Your task to perform on an android device: Open location settings Image 0: 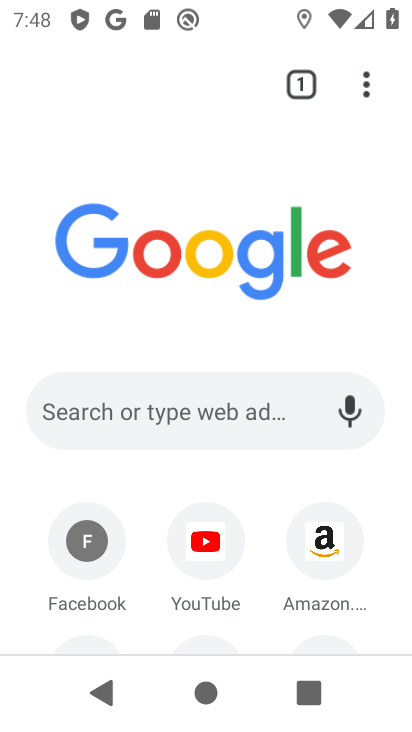
Step 0: press home button
Your task to perform on an android device: Open location settings Image 1: 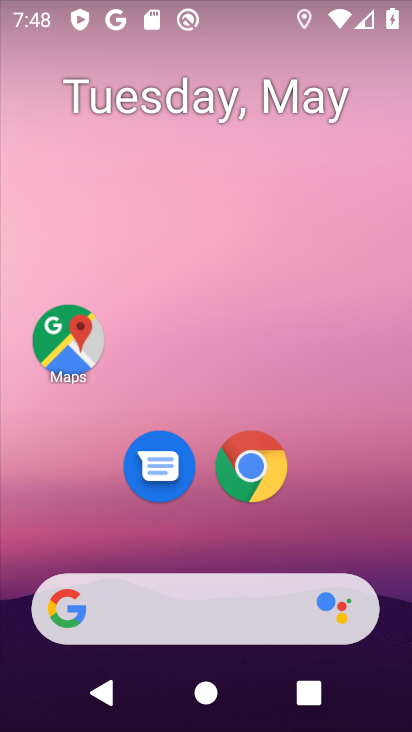
Step 1: drag from (174, 547) to (205, 192)
Your task to perform on an android device: Open location settings Image 2: 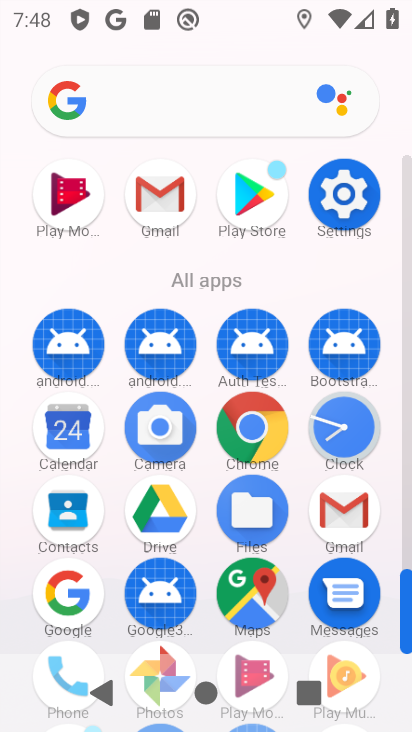
Step 2: click (341, 196)
Your task to perform on an android device: Open location settings Image 3: 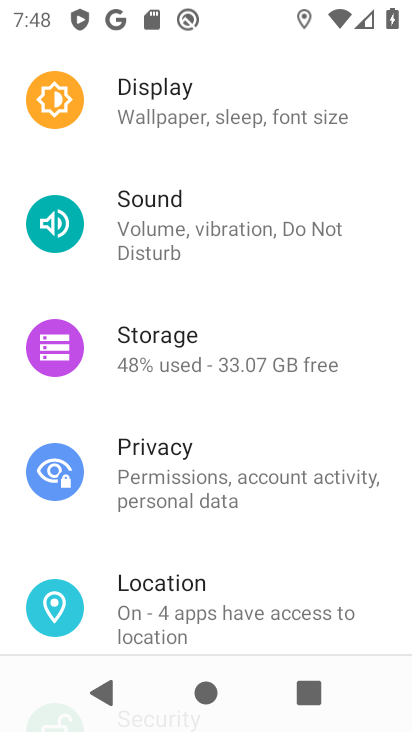
Step 3: click (198, 618)
Your task to perform on an android device: Open location settings Image 4: 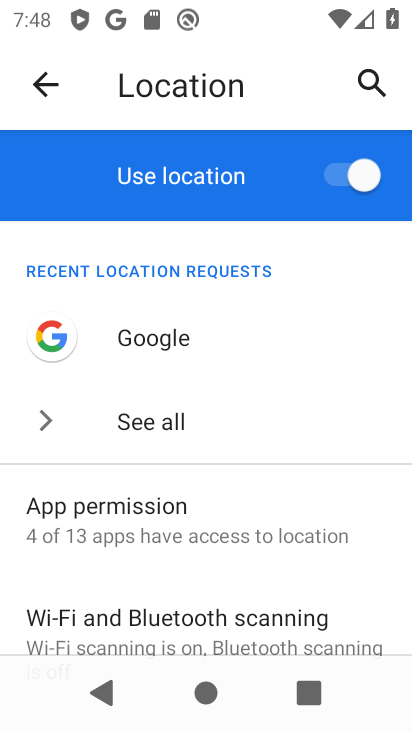
Step 4: drag from (225, 621) to (256, 242)
Your task to perform on an android device: Open location settings Image 5: 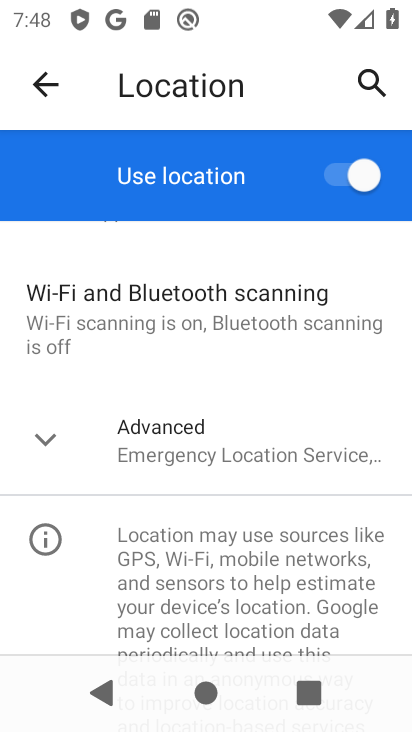
Step 5: click (49, 448)
Your task to perform on an android device: Open location settings Image 6: 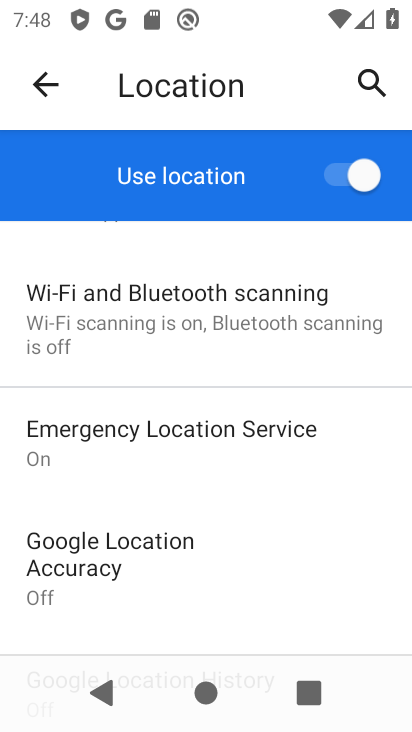
Step 6: task complete